Your task to perform on an android device: Go to accessibility settings Image 0: 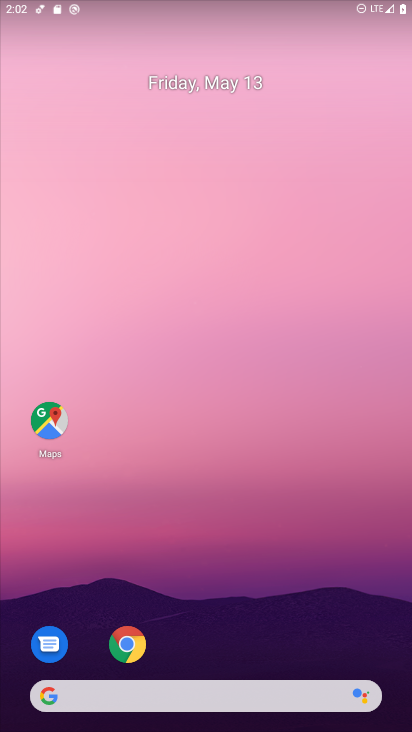
Step 0: drag from (331, 633) to (196, 53)
Your task to perform on an android device: Go to accessibility settings Image 1: 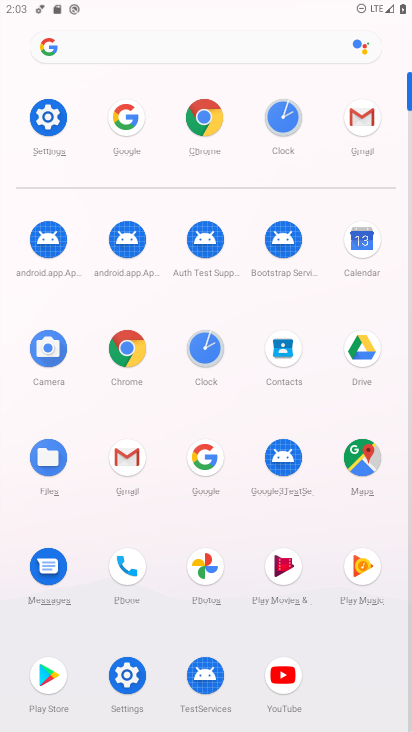
Step 1: click (129, 675)
Your task to perform on an android device: Go to accessibility settings Image 2: 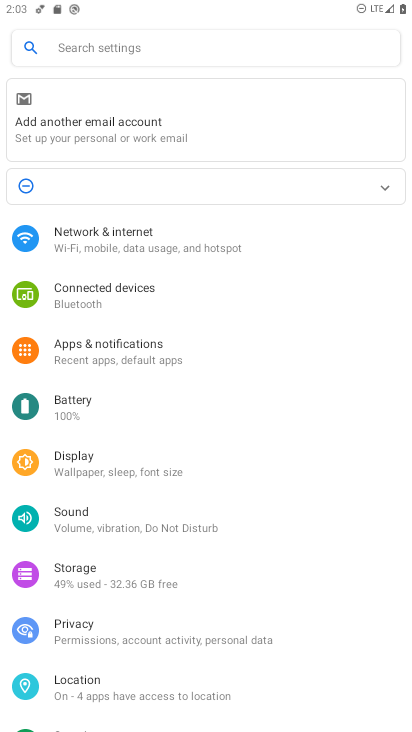
Step 2: drag from (164, 598) to (174, 281)
Your task to perform on an android device: Go to accessibility settings Image 3: 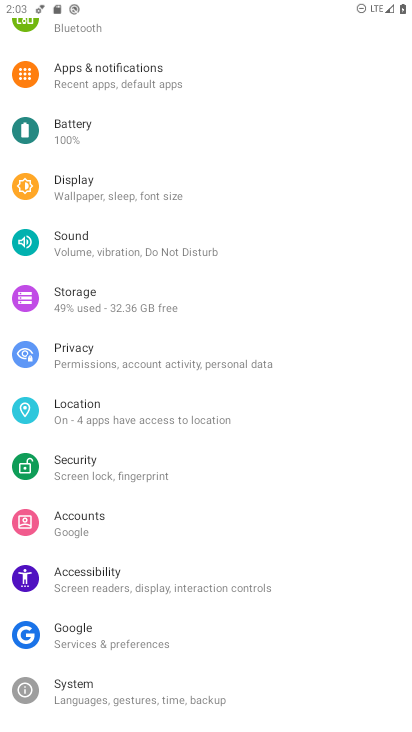
Step 3: click (182, 585)
Your task to perform on an android device: Go to accessibility settings Image 4: 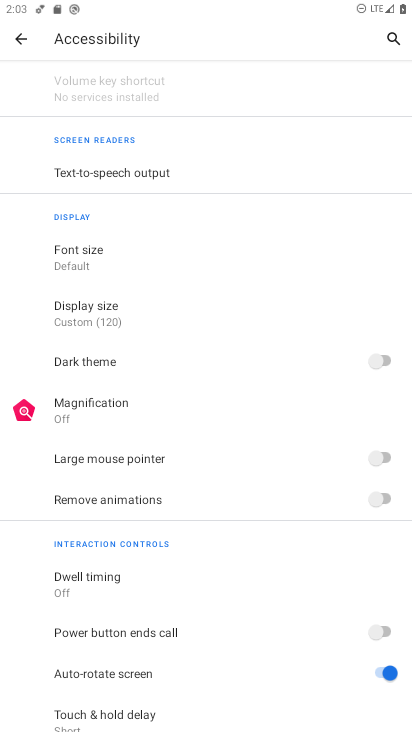
Step 4: task complete